Your task to perform on an android device: choose inbox layout in the gmail app Image 0: 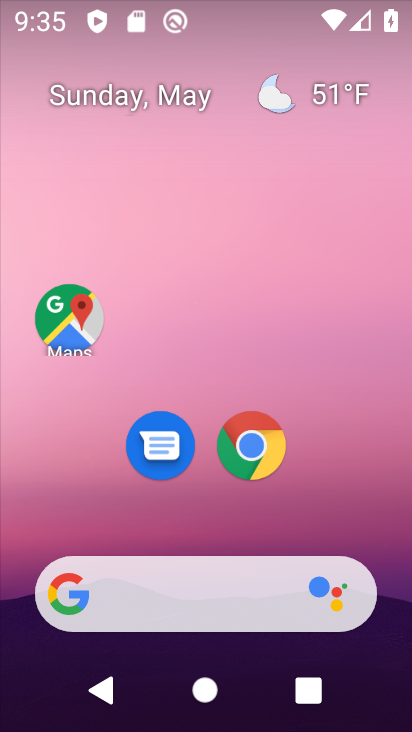
Step 0: drag from (170, 543) to (193, 240)
Your task to perform on an android device: choose inbox layout in the gmail app Image 1: 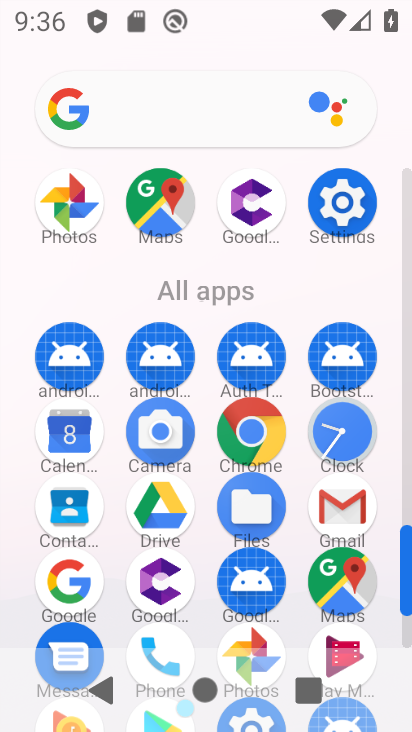
Step 1: click (344, 502)
Your task to perform on an android device: choose inbox layout in the gmail app Image 2: 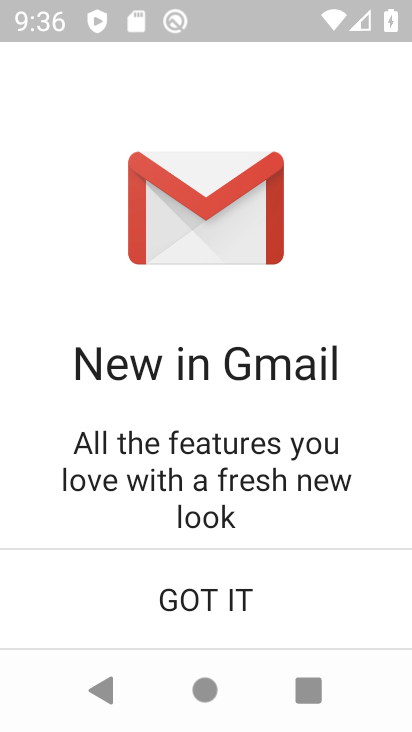
Step 2: click (276, 598)
Your task to perform on an android device: choose inbox layout in the gmail app Image 3: 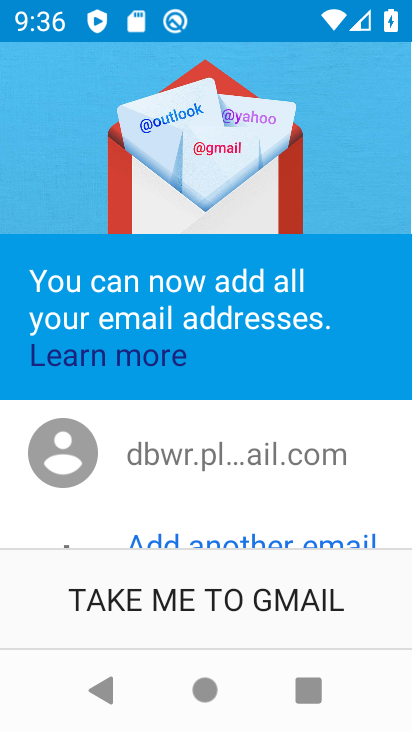
Step 3: click (223, 623)
Your task to perform on an android device: choose inbox layout in the gmail app Image 4: 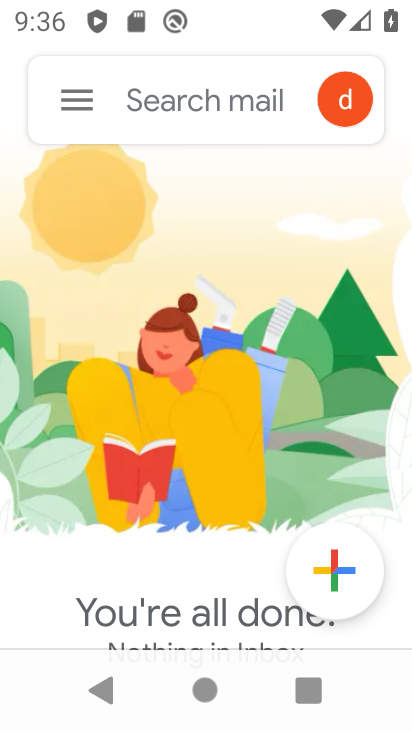
Step 4: click (96, 93)
Your task to perform on an android device: choose inbox layout in the gmail app Image 5: 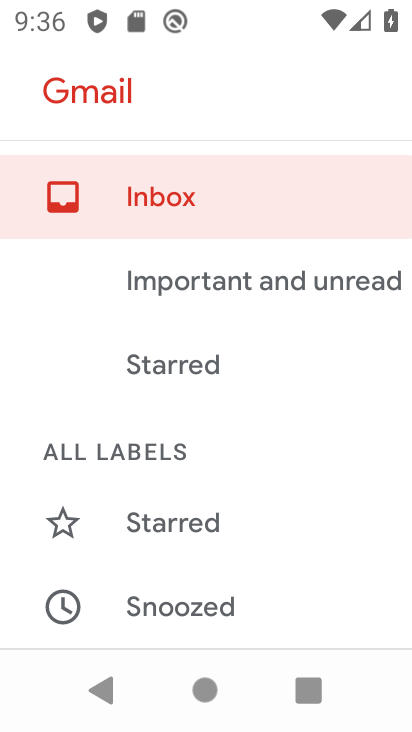
Step 5: drag from (235, 609) to (258, 355)
Your task to perform on an android device: choose inbox layout in the gmail app Image 6: 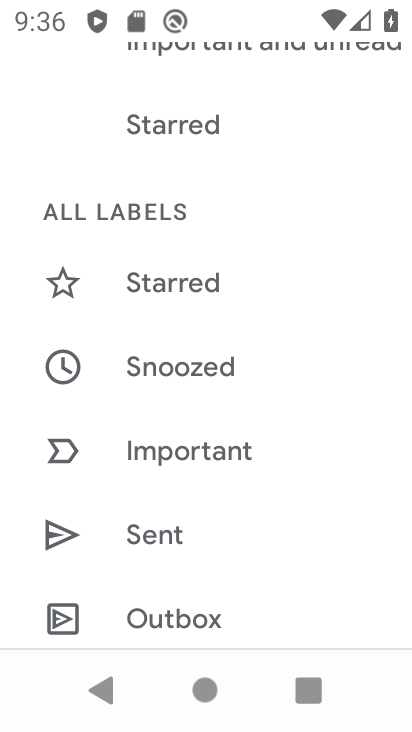
Step 6: drag from (223, 582) to (292, 260)
Your task to perform on an android device: choose inbox layout in the gmail app Image 7: 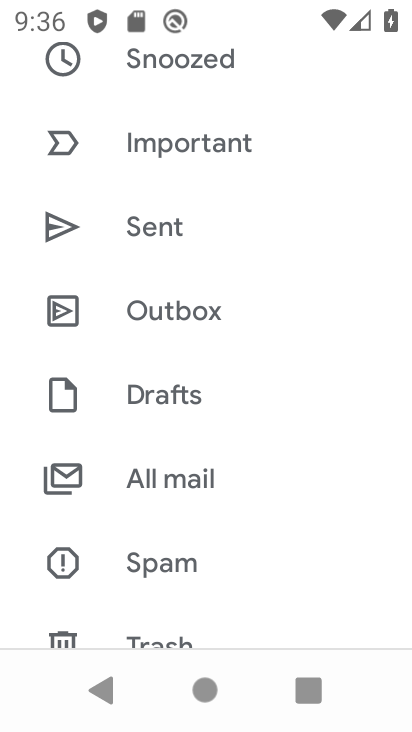
Step 7: drag from (241, 567) to (266, 389)
Your task to perform on an android device: choose inbox layout in the gmail app Image 8: 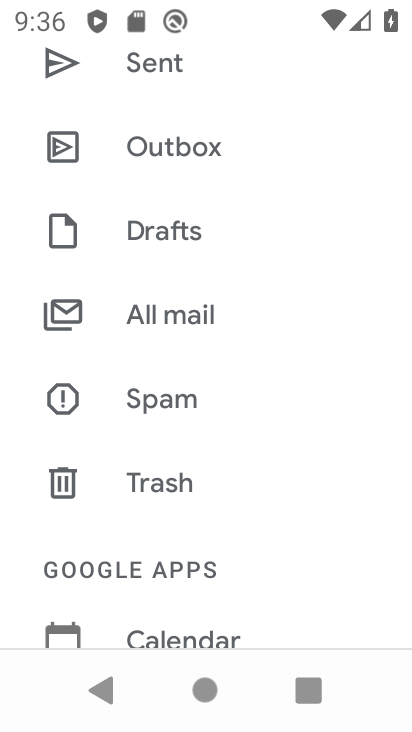
Step 8: drag from (236, 577) to (293, 368)
Your task to perform on an android device: choose inbox layout in the gmail app Image 9: 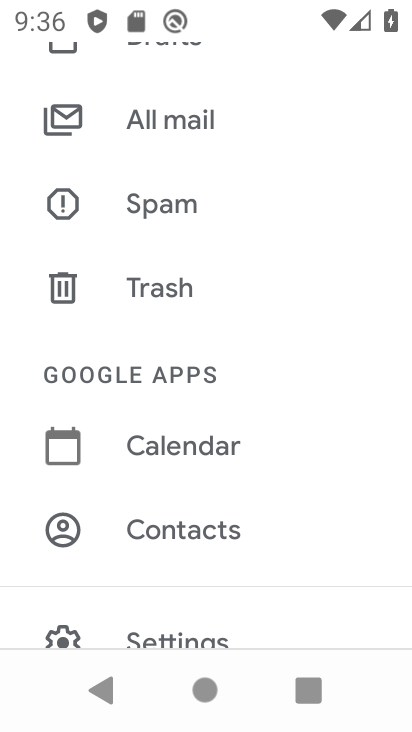
Step 9: drag from (234, 553) to (279, 250)
Your task to perform on an android device: choose inbox layout in the gmail app Image 10: 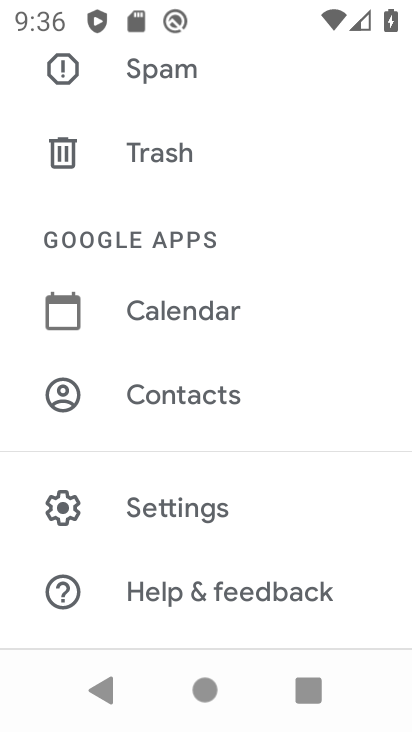
Step 10: click (204, 507)
Your task to perform on an android device: choose inbox layout in the gmail app Image 11: 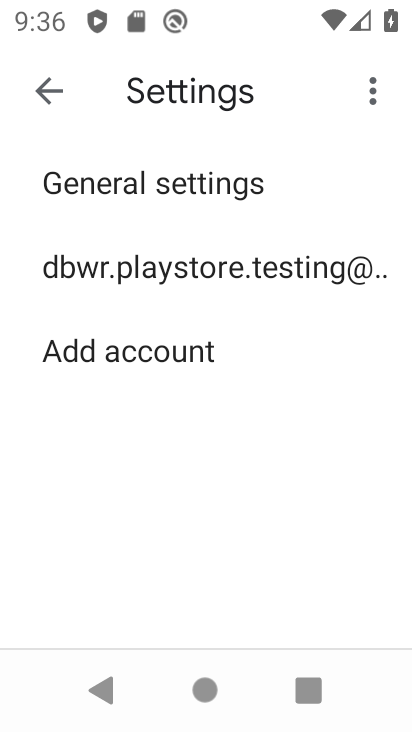
Step 11: click (196, 280)
Your task to perform on an android device: choose inbox layout in the gmail app Image 12: 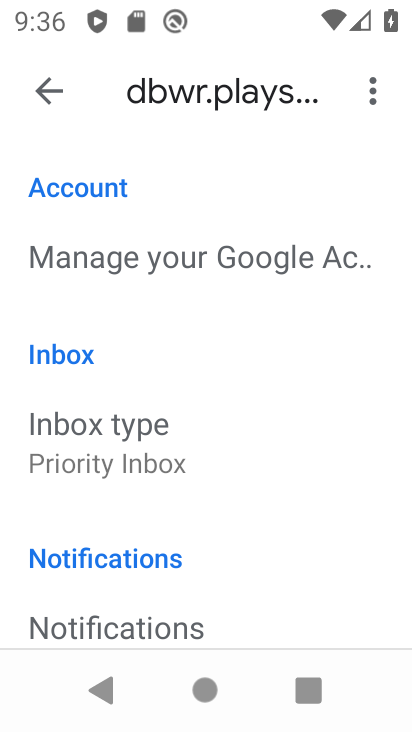
Step 12: drag from (240, 634) to (275, 436)
Your task to perform on an android device: choose inbox layout in the gmail app Image 13: 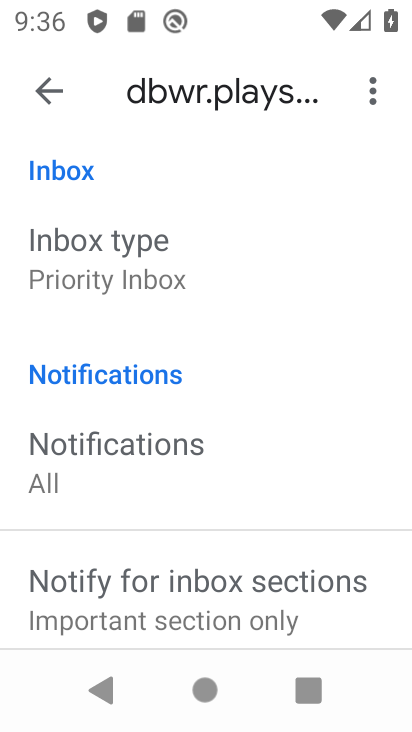
Step 13: drag from (213, 577) to (373, 148)
Your task to perform on an android device: choose inbox layout in the gmail app Image 14: 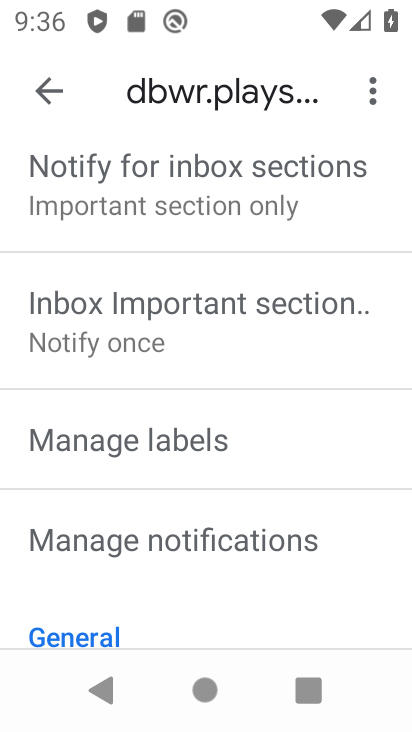
Step 14: drag from (166, 577) to (211, 405)
Your task to perform on an android device: choose inbox layout in the gmail app Image 15: 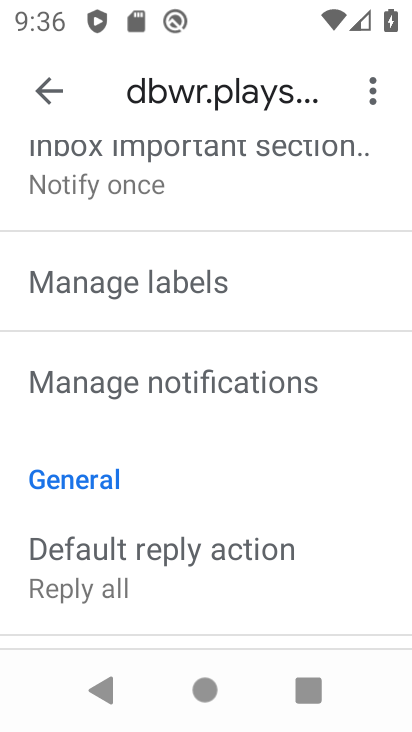
Step 15: drag from (314, 139) to (300, 541)
Your task to perform on an android device: choose inbox layout in the gmail app Image 16: 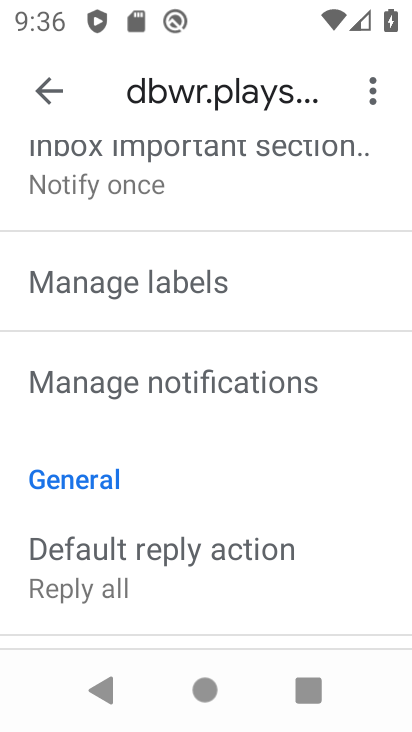
Step 16: drag from (329, 228) to (215, 694)
Your task to perform on an android device: choose inbox layout in the gmail app Image 17: 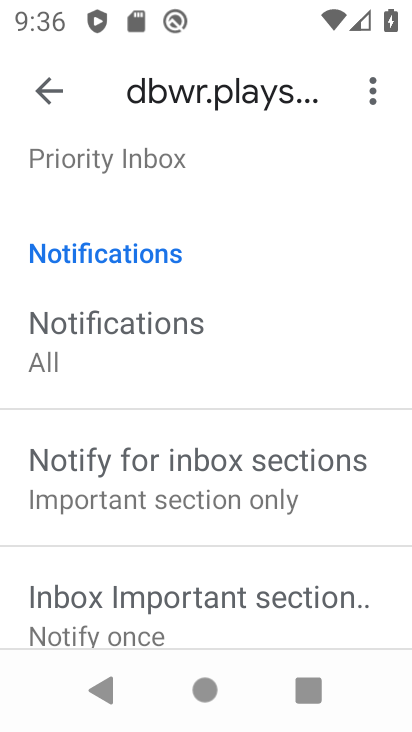
Step 17: drag from (324, 209) to (290, 566)
Your task to perform on an android device: choose inbox layout in the gmail app Image 18: 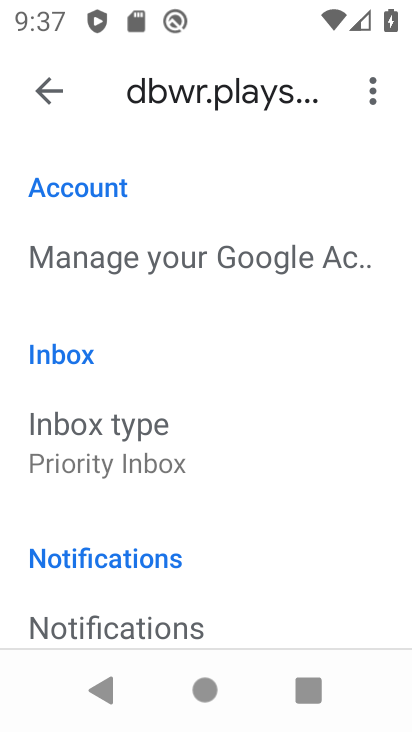
Step 18: click (334, 429)
Your task to perform on an android device: choose inbox layout in the gmail app Image 19: 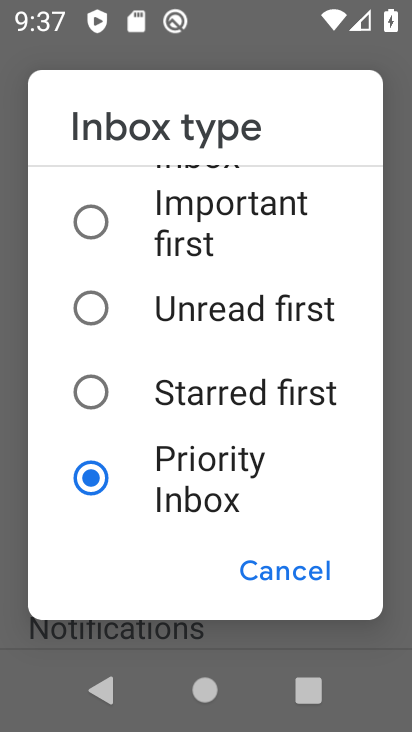
Step 19: click (318, 395)
Your task to perform on an android device: choose inbox layout in the gmail app Image 20: 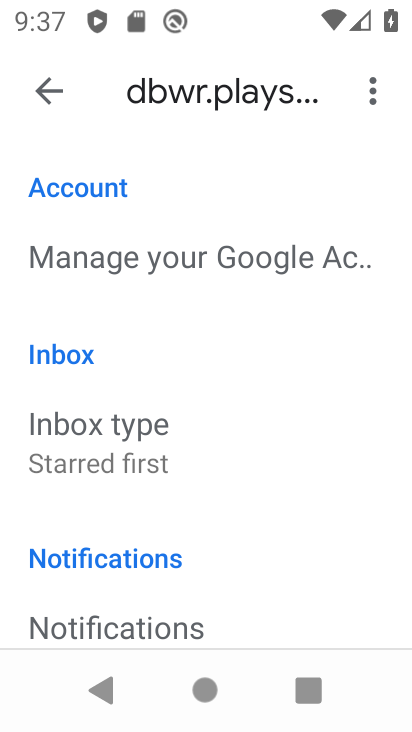
Step 20: task complete